Your task to perform on an android device: toggle notifications settings in the gmail app Image 0: 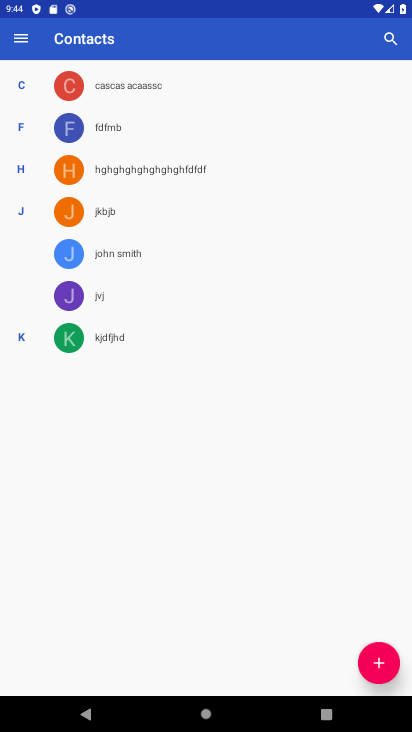
Step 0: press home button
Your task to perform on an android device: toggle notifications settings in the gmail app Image 1: 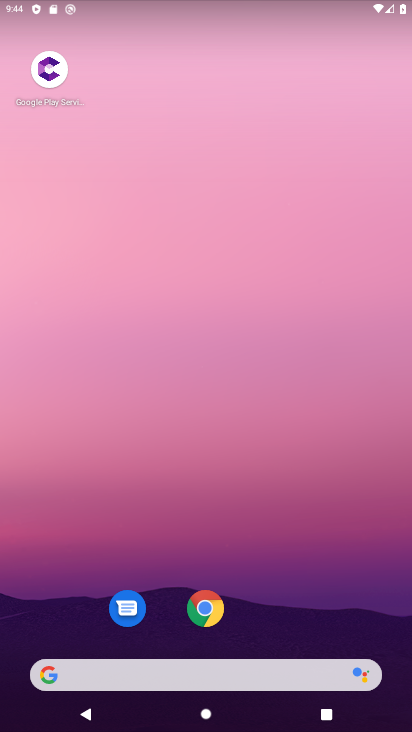
Step 1: drag from (38, 707) to (400, 231)
Your task to perform on an android device: toggle notifications settings in the gmail app Image 2: 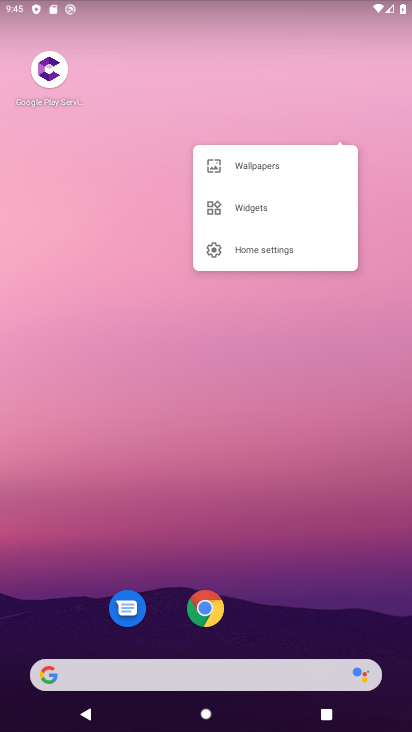
Step 2: drag from (30, 726) to (353, 67)
Your task to perform on an android device: toggle notifications settings in the gmail app Image 3: 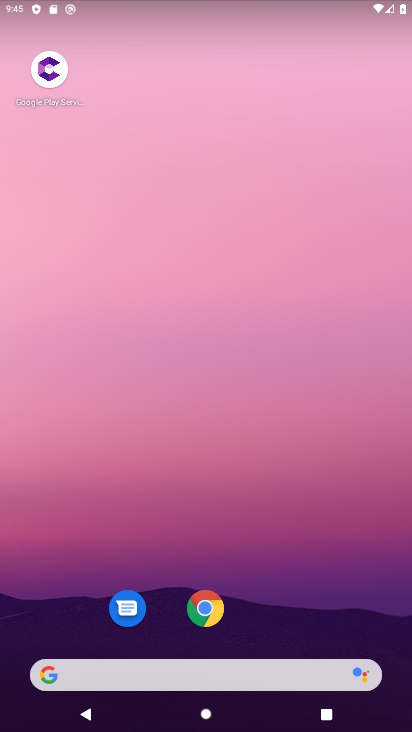
Step 3: drag from (23, 698) to (324, 36)
Your task to perform on an android device: toggle notifications settings in the gmail app Image 4: 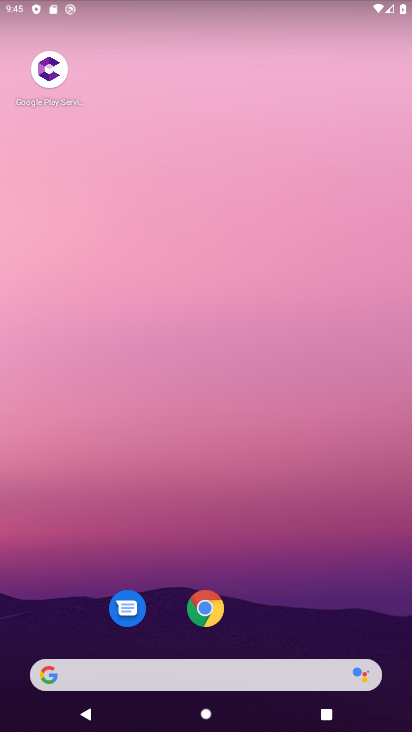
Step 4: drag from (64, 649) to (359, 4)
Your task to perform on an android device: toggle notifications settings in the gmail app Image 5: 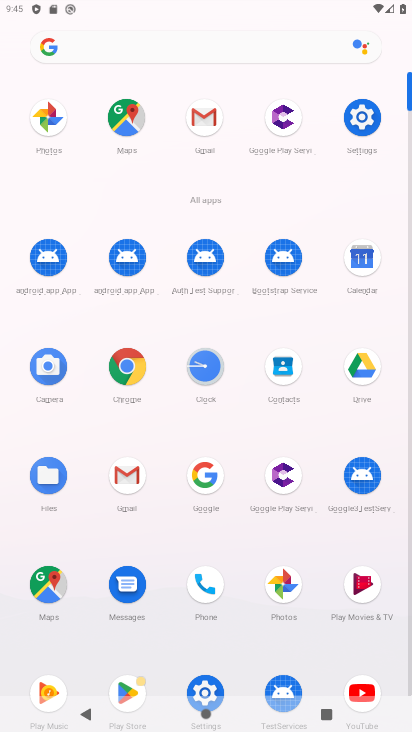
Step 5: click (115, 465)
Your task to perform on an android device: toggle notifications settings in the gmail app Image 6: 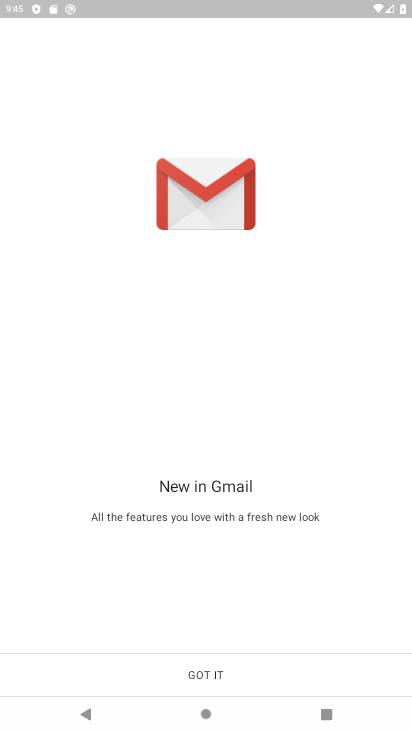
Step 6: click (212, 673)
Your task to perform on an android device: toggle notifications settings in the gmail app Image 7: 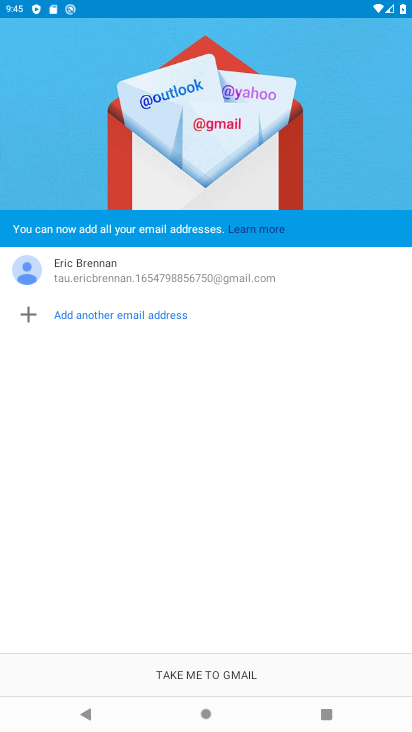
Step 7: click (186, 667)
Your task to perform on an android device: toggle notifications settings in the gmail app Image 8: 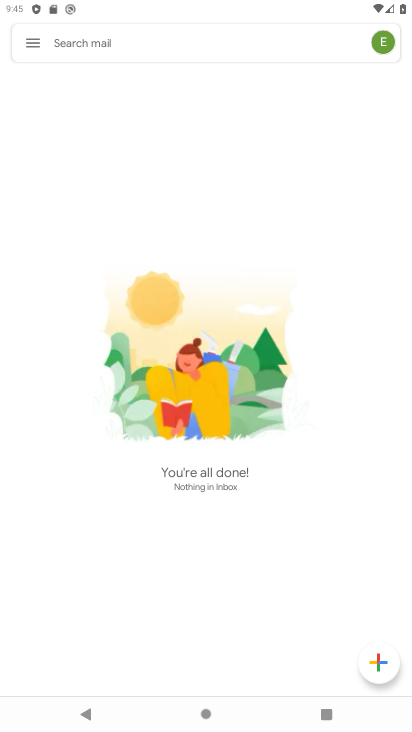
Step 8: click (44, 38)
Your task to perform on an android device: toggle notifications settings in the gmail app Image 9: 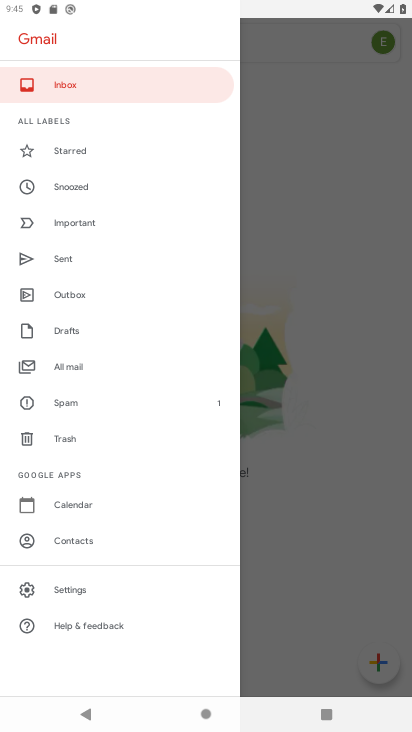
Step 9: click (78, 587)
Your task to perform on an android device: toggle notifications settings in the gmail app Image 10: 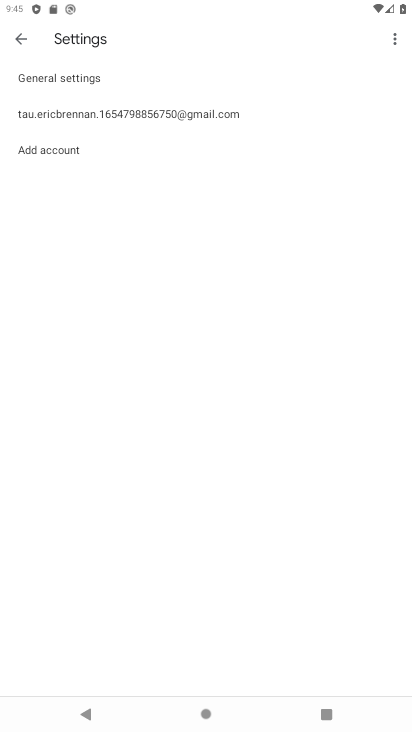
Step 10: click (56, 72)
Your task to perform on an android device: toggle notifications settings in the gmail app Image 11: 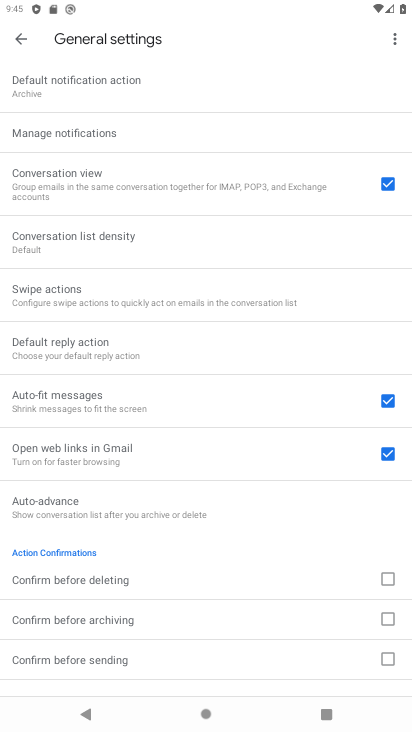
Step 11: click (74, 124)
Your task to perform on an android device: toggle notifications settings in the gmail app Image 12: 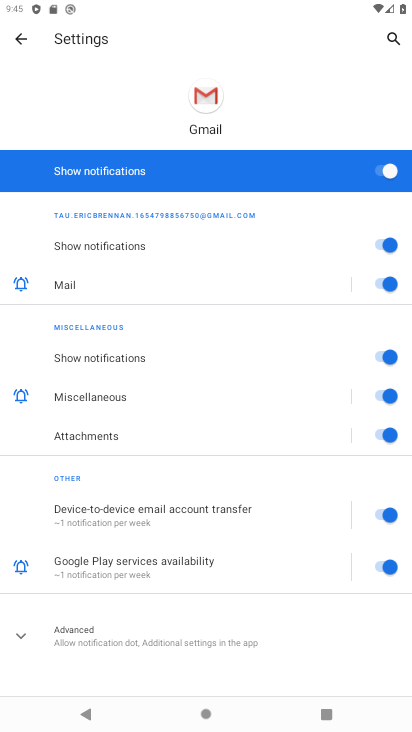
Step 12: task complete